Your task to perform on an android device: turn on airplane mode Image 0: 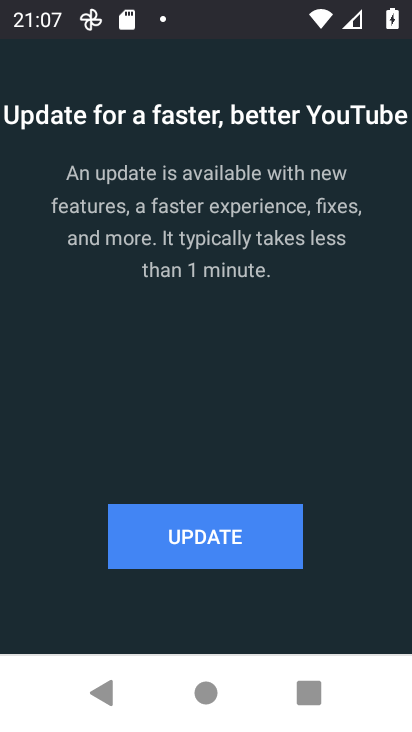
Step 0: task complete